Your task to perform on an android device: find photos in the google photos app Image 0: 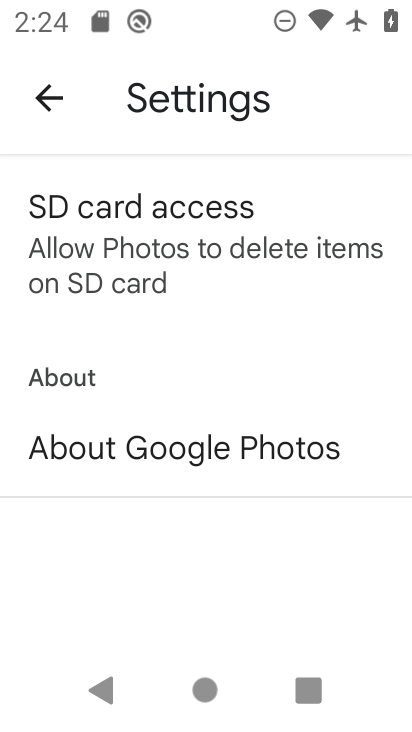
Step 0: press home button
Your task to perform on an android device: find photos in the google photos app Image 1: 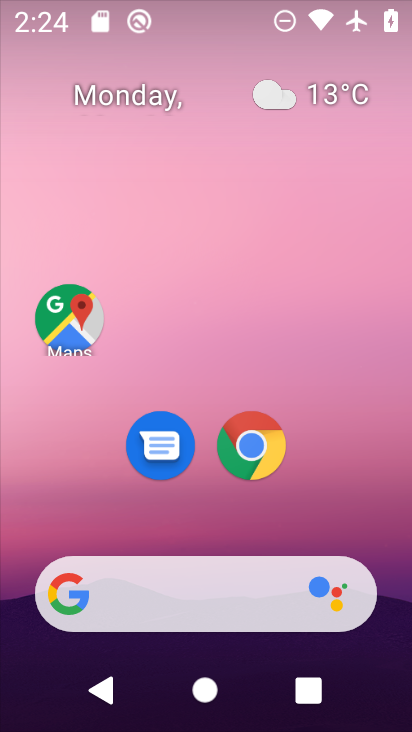
Step 1: drag from (383, 627) to (260, 162)
Your task to perform on an android device: find photos in the google photos app Image 2: 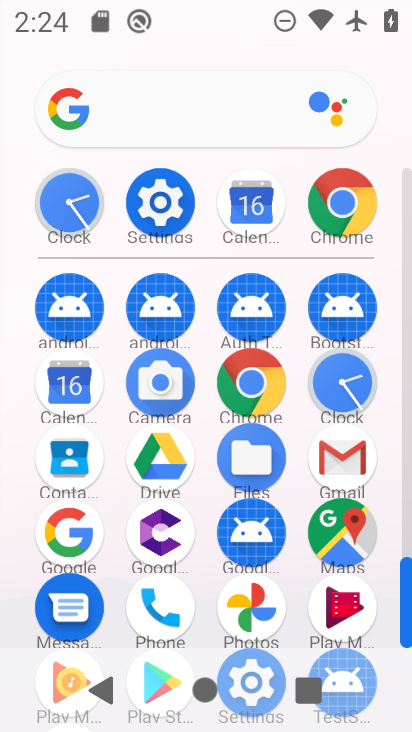
Step 2: click (263, 617)
Your task to perform on an android device: find photos in the google photos app Image 3: 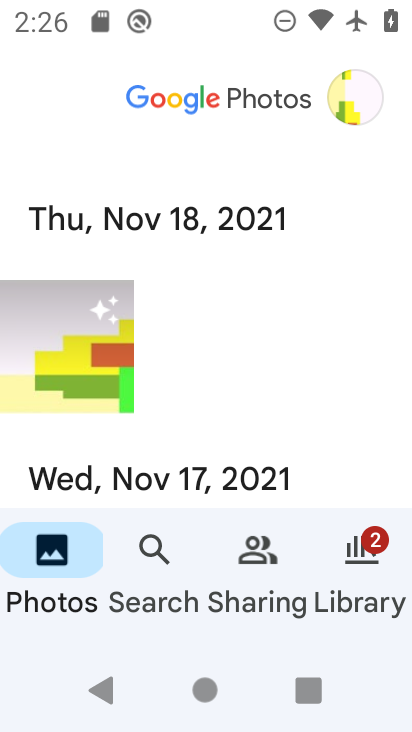
Step 3: task complete